Your task to perform on an android device: Open the Play Movies app and select the watchlist tab. Image 0: 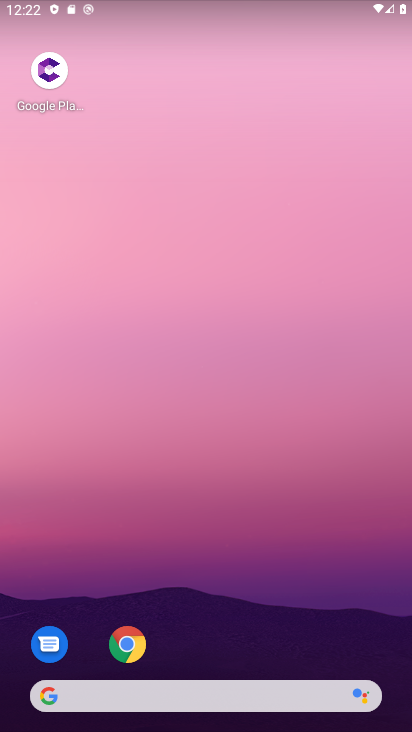
Step 0: drag from (234, 605) to (178, 80)
Your task to perform on an android device: Open the Play Movies app and select the watchlist tab. Image 1: 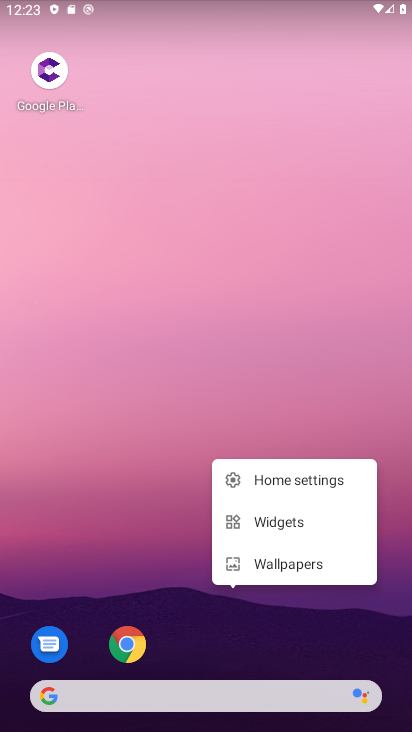
Step 1: click (168, 430)
Your task to perform on an android device: Open the Play Movies app and select the watchlist tab. Image 2: 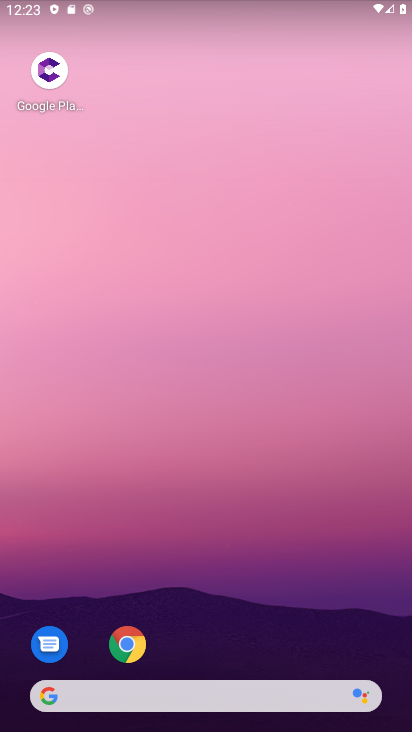
Step 2: drag from (249, 545) to (233, 8)
Your task to perform on an android device: Open the Play Movies app and select the watchlist tab. Image 3: 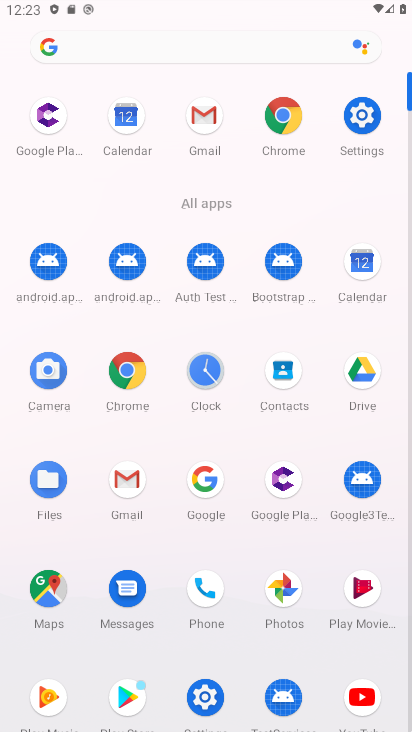
Step 3: click (360, 582)
Your task to perform on an android device: Open the Play Movies app and select the watchlist tab. Image 4: 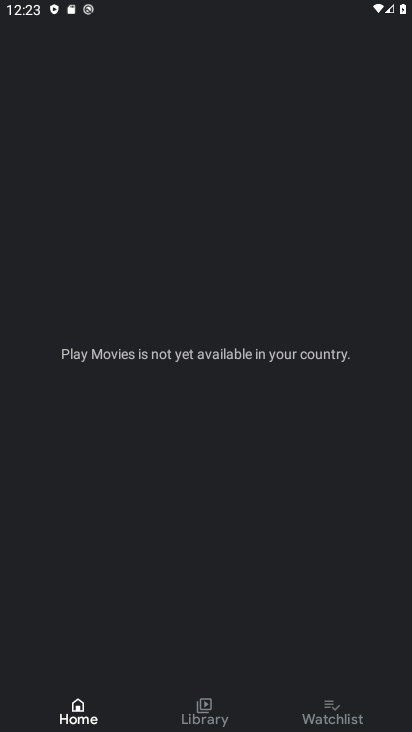
Step 4: click (328, 704)
Your task to perform on an android device: Open the Play Movies app and select the watchlist tab. Image 5: 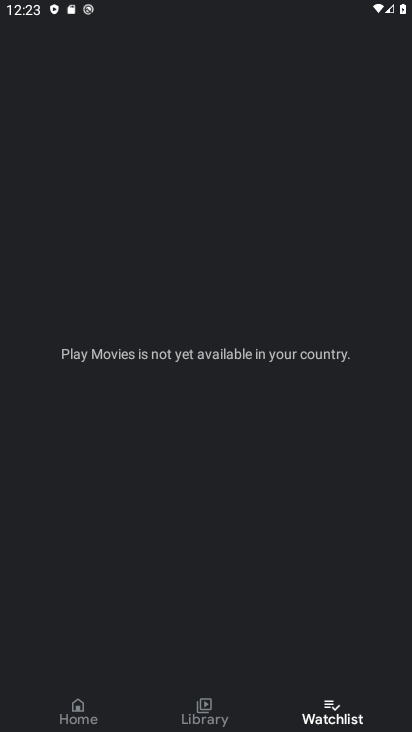
Step 5: task complete